Your task to perform on an android device: Open Google Chrome and click the shortcut for Amazon.com Image 0: 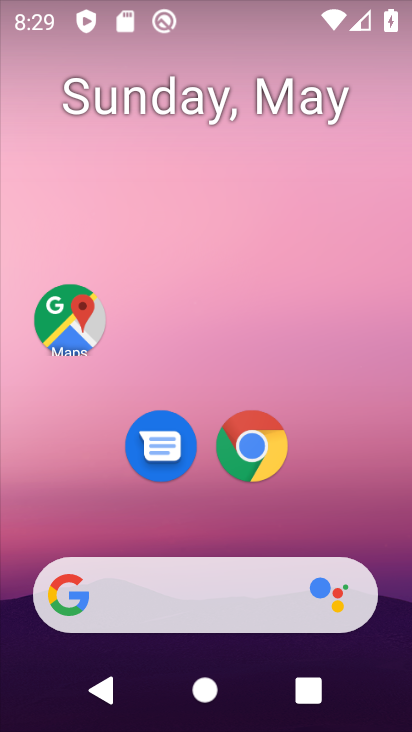
Step 0: click (263, 445)
Your task to perform on an android device: Open Google Chrome and click the shortcut for Amazon.com Image 1: 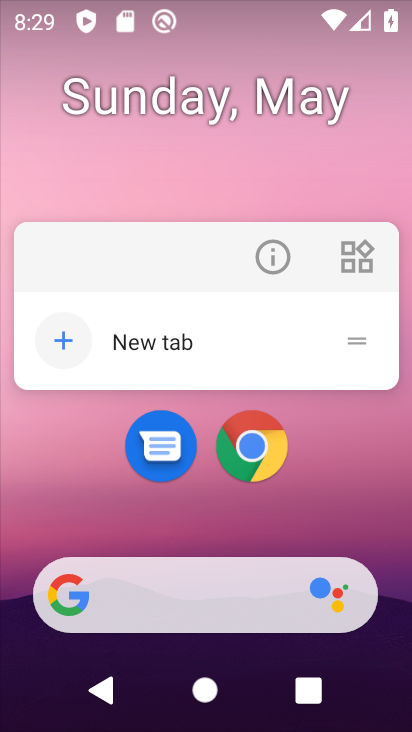
Step 1: click (251, 442)
Your task to perform on an android device: Open Google Chrome and click the shortcut for Amazon.com Image 2: 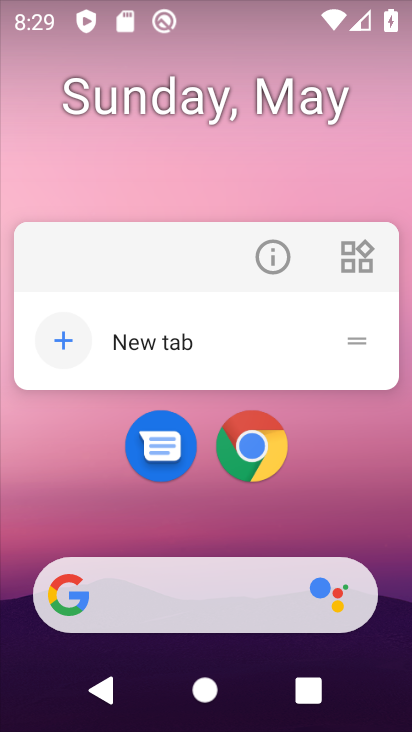
Step 2: click (254, 465)
Your task to perform on an android device: Open Google Chrome and click the shortcut for Amazon.com Image 3: 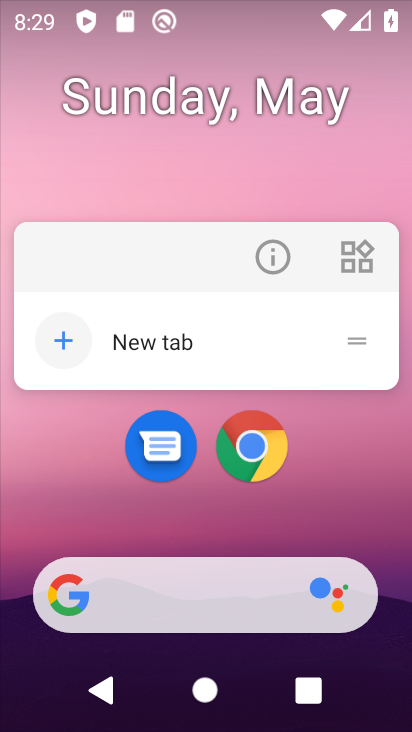
Step 3: click (253, 465)
Your task to perform on an android device: Open Google Chrome and click the shortcut for Amazon.com Image 4: 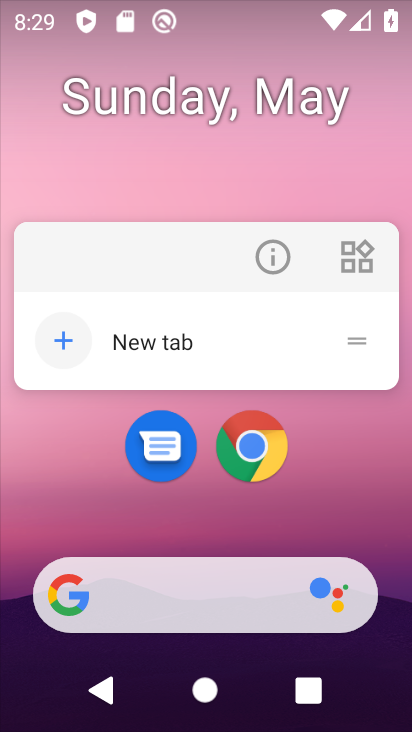
Step 4: click (249, 444)
Your task to perform on an android device: Open Google Chrome and click the shortcut for Amazon.com Image 5: 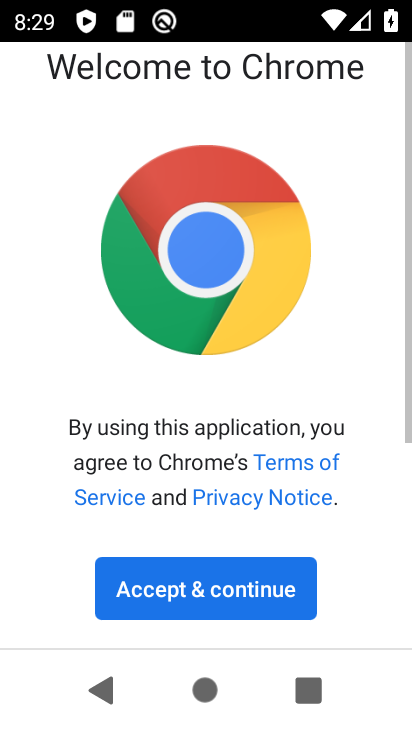
Step 5: click (207, 602)
Your task to perform on an android device: Open Google Chrome and click the shortcut for Amazon.com Image 6: 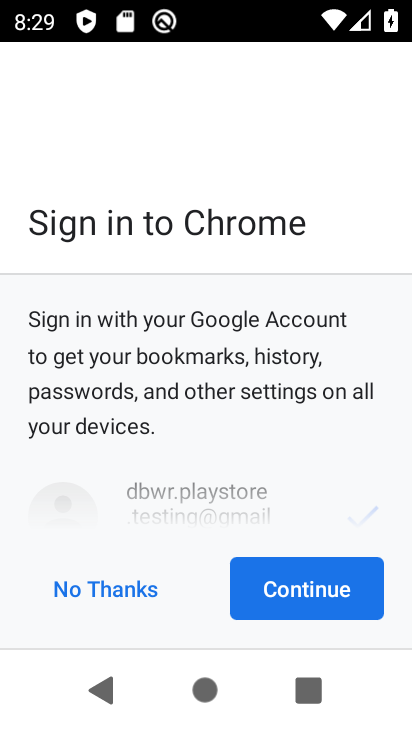
Step 6: click (332, 592)
Your task to perform on an android device: Open Google Chrome and click the shortcut for Amazon.com Image 7: 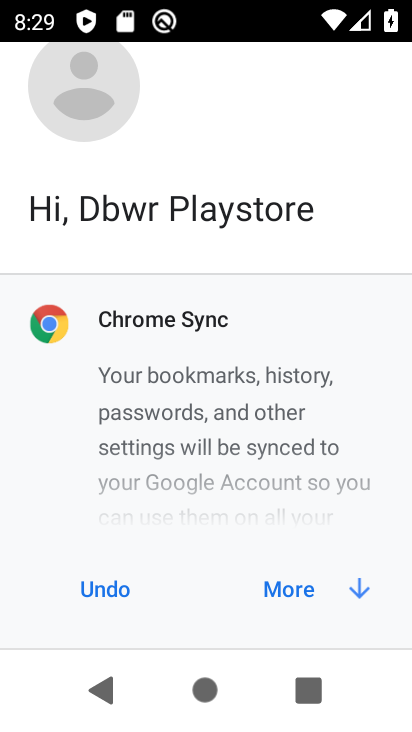
Step 7: click (316, 598)
Your task to perform on an android device: Open Google Chrome and click the shortcut for Amazon.com Image 8: 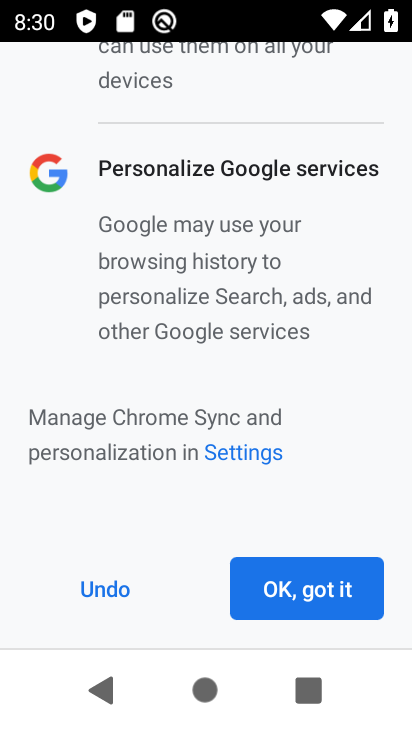
Step 8: click (264, 572)
Your task to perform on an android device: Open Google Chrome and click the shortcut for Amazon.com Image 9: 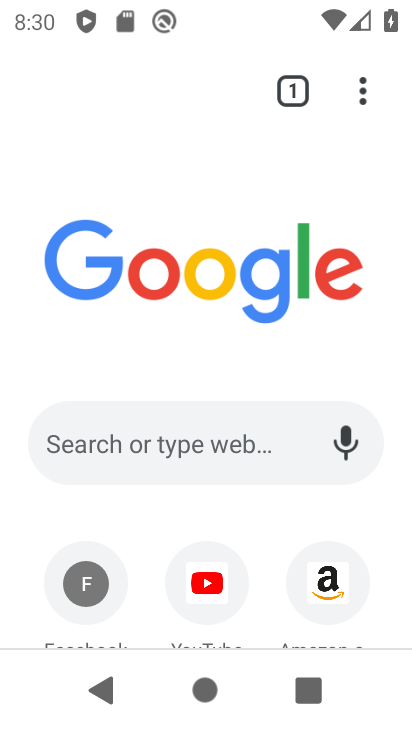
Step 9: click (315, 588)
Your task to perform on an android device: Open Google Chrome and click the shortcut for Amazon.com Image 10: 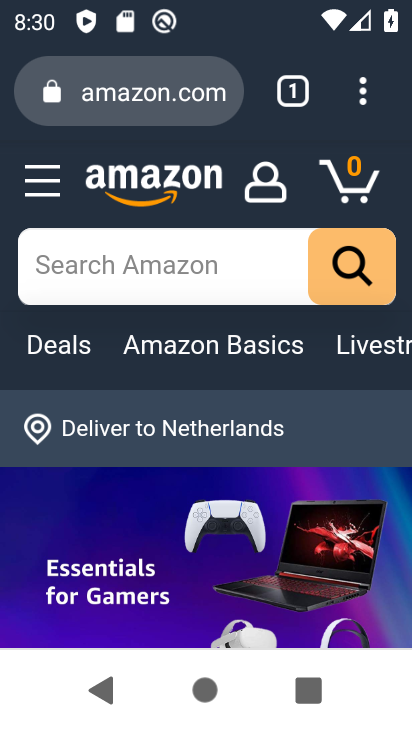
Step 10: task complete